Your task to perform on an android device: see creations saved in the google photos Image 0: 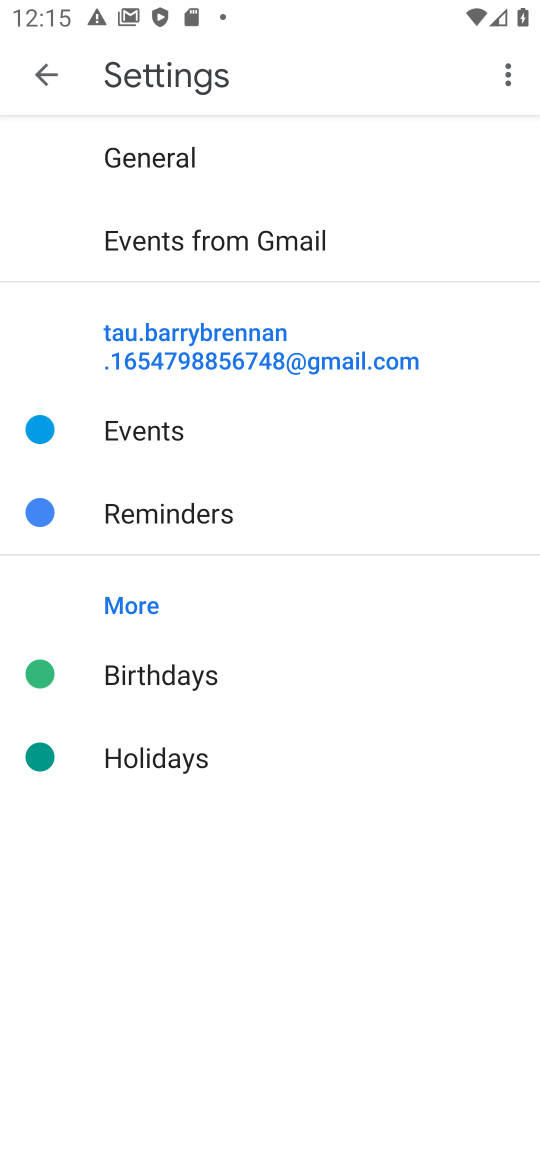
Step 0: press home button
Your task to perform on an android device: see creations saved in the google photos Image 1: 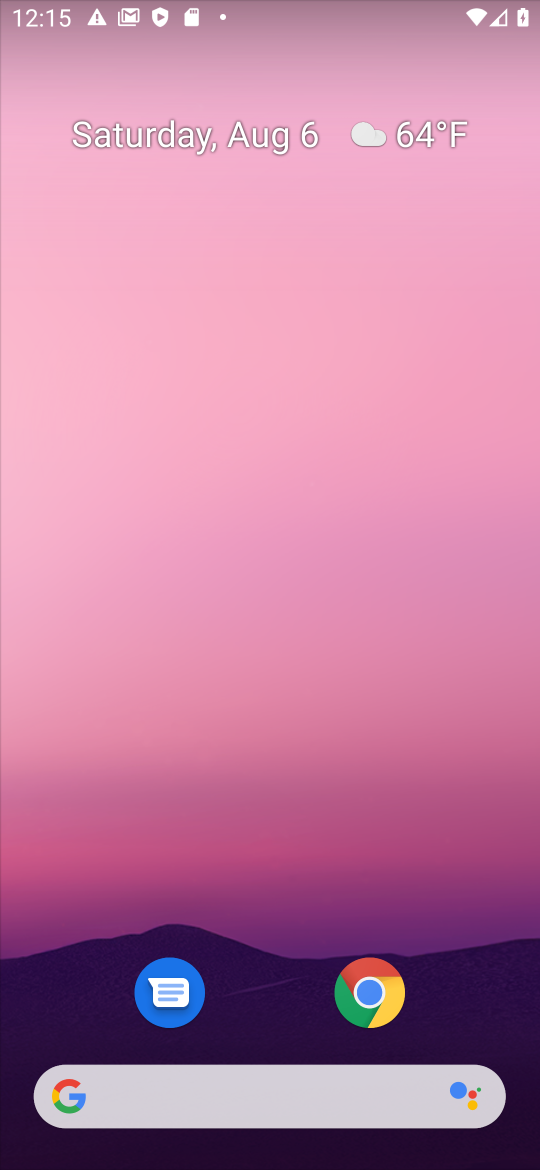
Step 1: drag from (308, 1090) to (466, 233)
Your task to perform on an android device: see creations saved in the google photos Image 2: 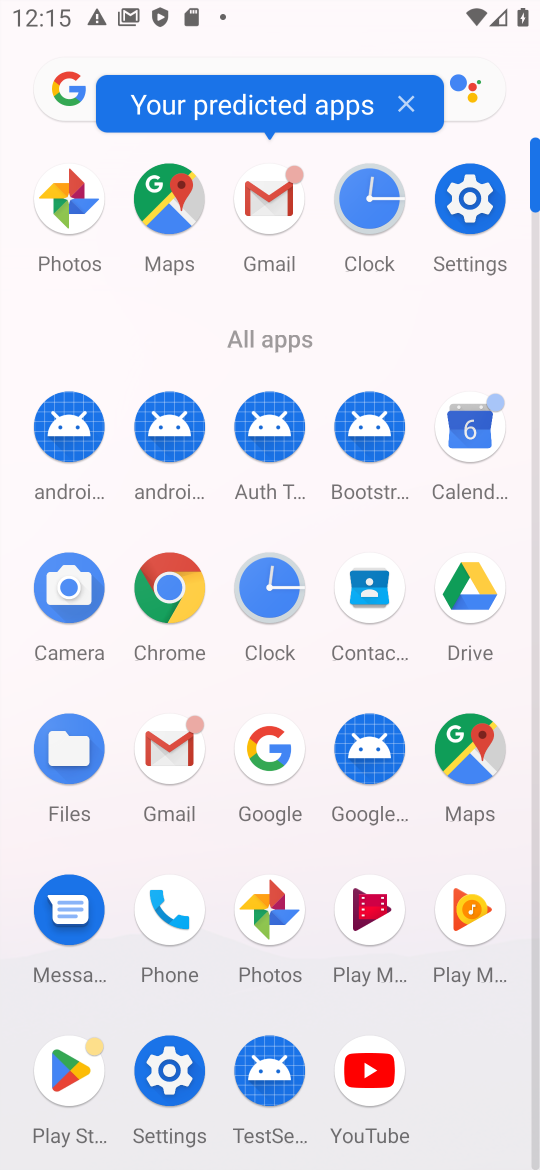
Step 2: click (276, 917)
Your task to perform on an android device: see creations saved in the google photos Image 3: 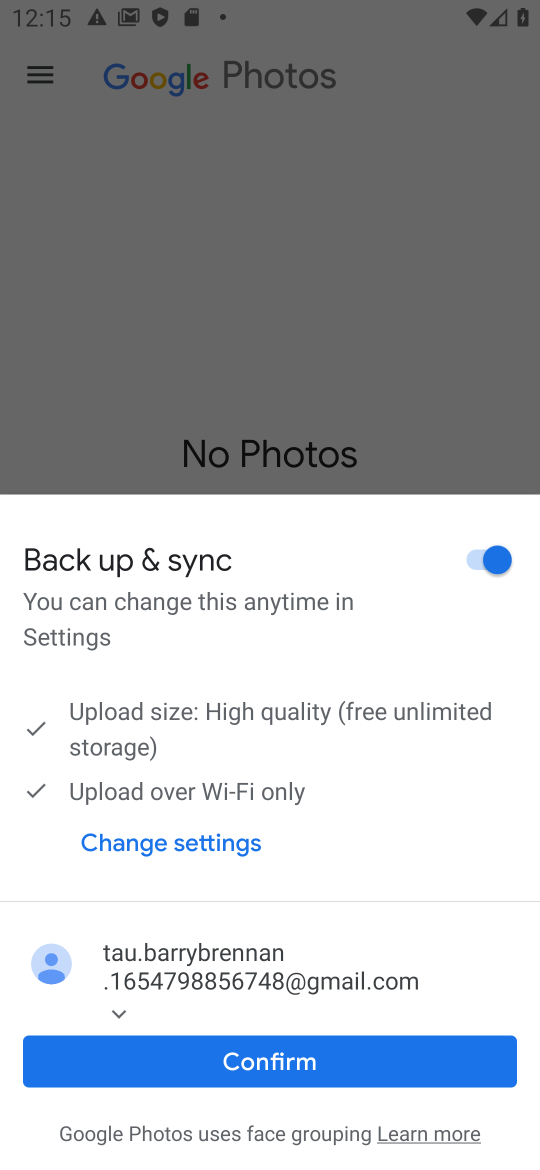
Step 3: click (289, 1058)
Your task to perform on an android device: see creations saved in the google photos Image 4: 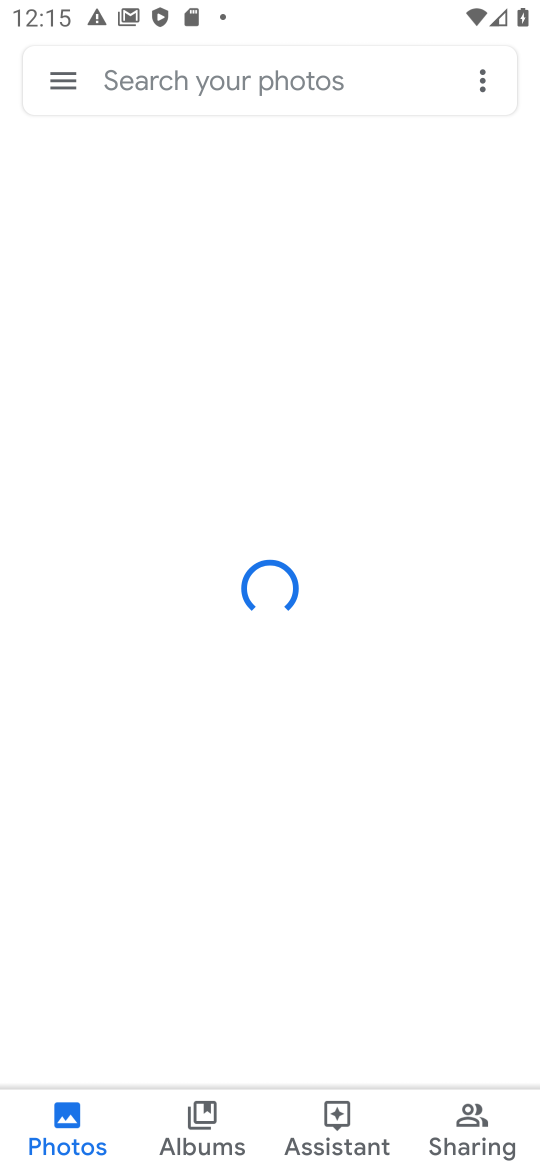
Step 4: click (194, 1126)
Your task to perform on an android device: see creations saved in the google photos Image 5: 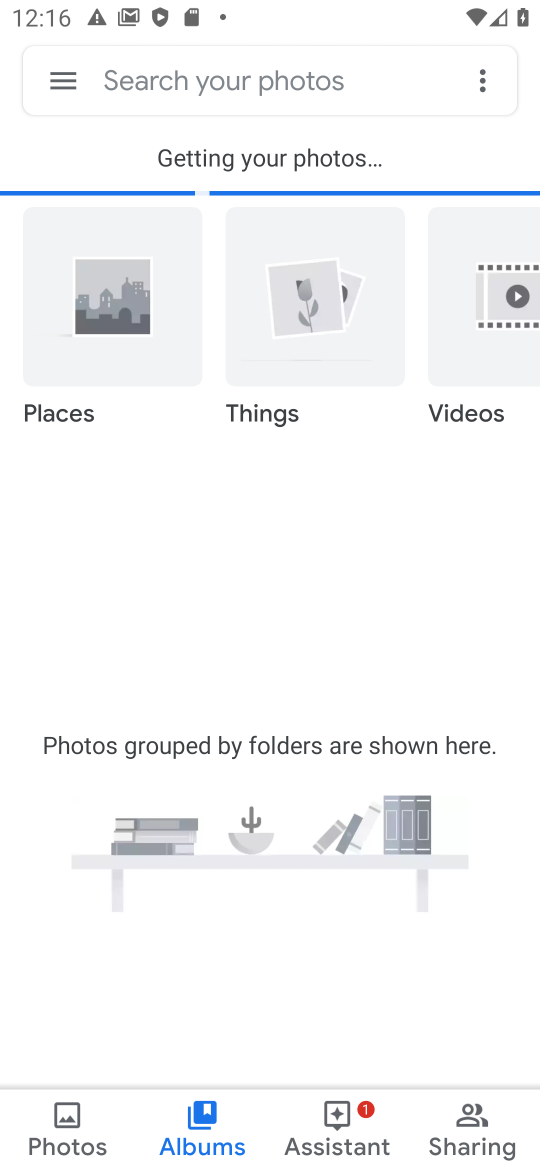
Step 5: click (217, 150)
Your task to perform on an android device: see creations saved in the google photos Image 6: 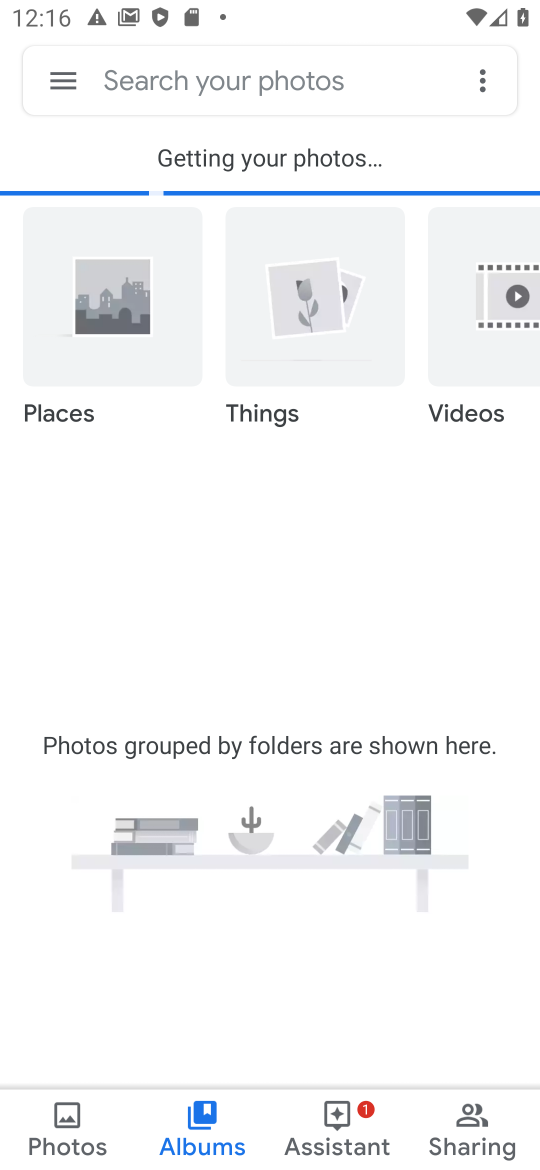
Step 6: click (217, 79)
Your task to perform on an android device: see creations saved in the google photos Image 7: 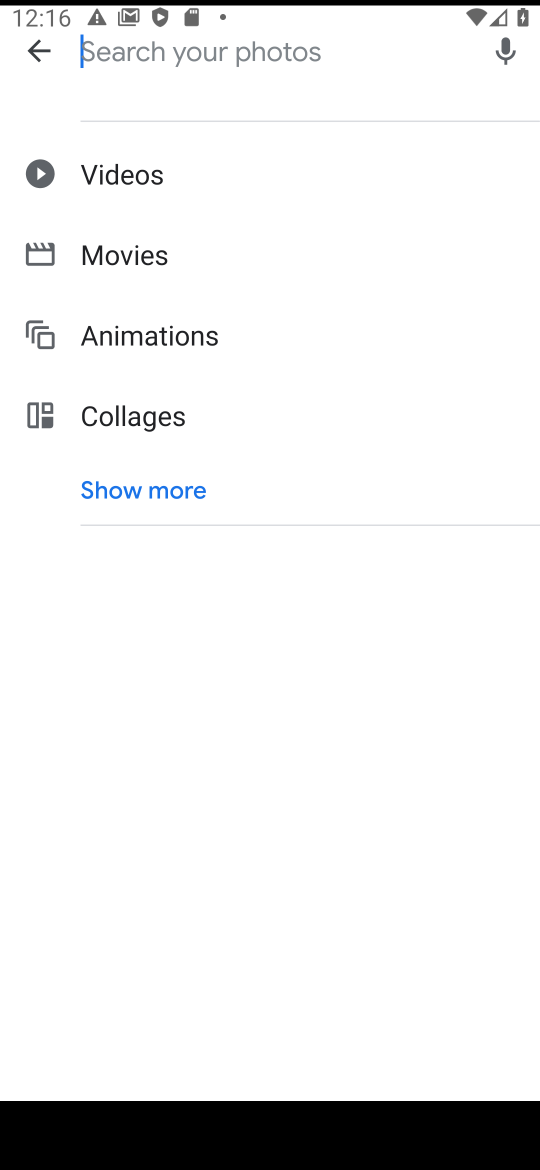
Step 7: click (152, 481)
Your task to perform on an android device: see creations saved in the google photos Image 8: 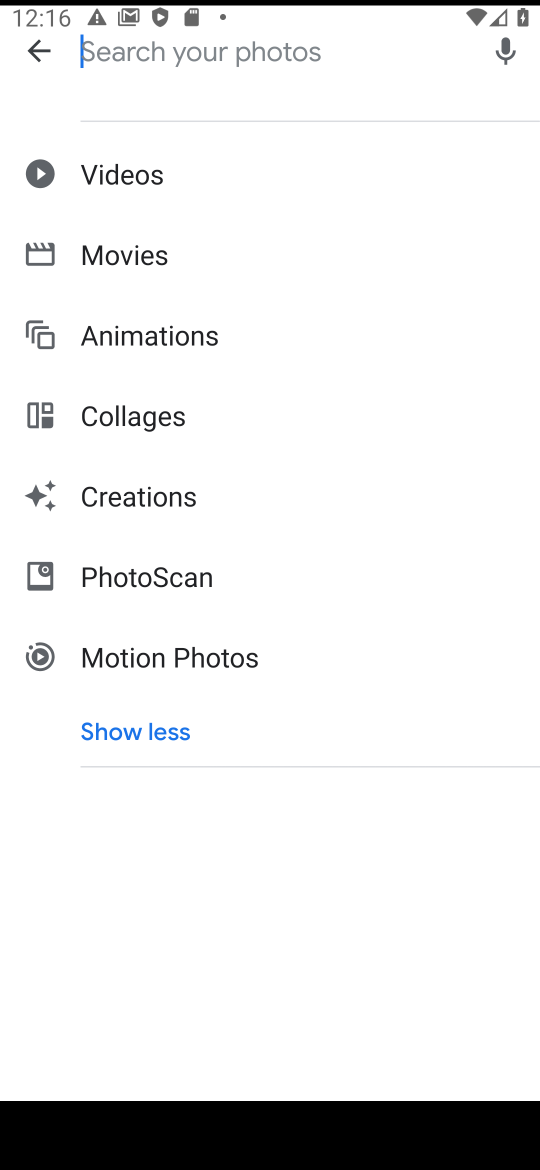
Step 8: click (148, 493)
Your task to perform on an android device: see creations saved in the google photos Image 9: 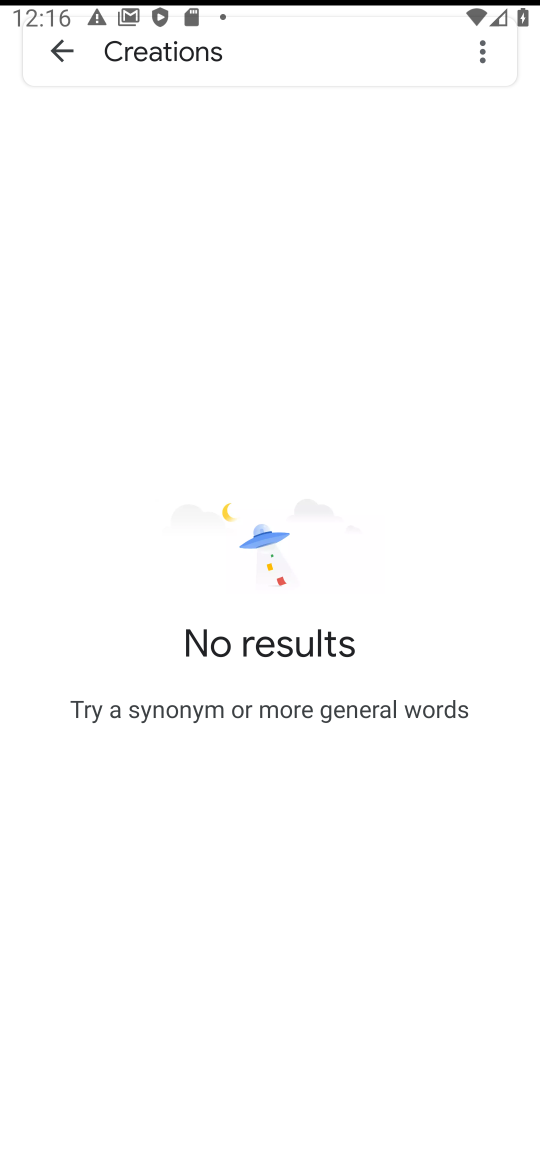
Step 9: task complete